Your task to perform on an android device: Search for a dining table on crateandbarrel.com Image 0: 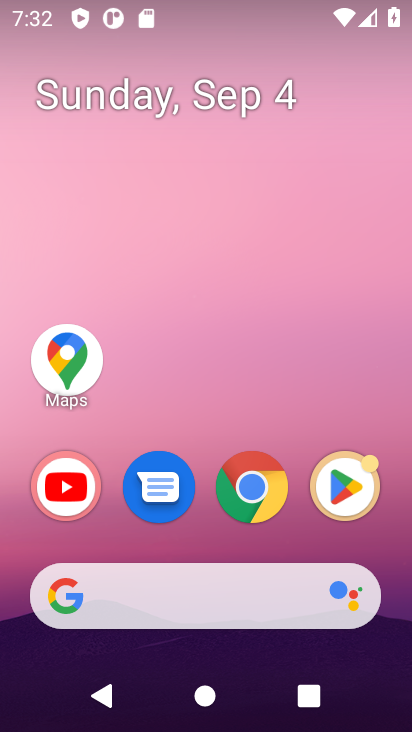
Step 0: click (221, 578)
Your task to perform on an android device: Search for a dining table on crateandbarrel.com Image 1: 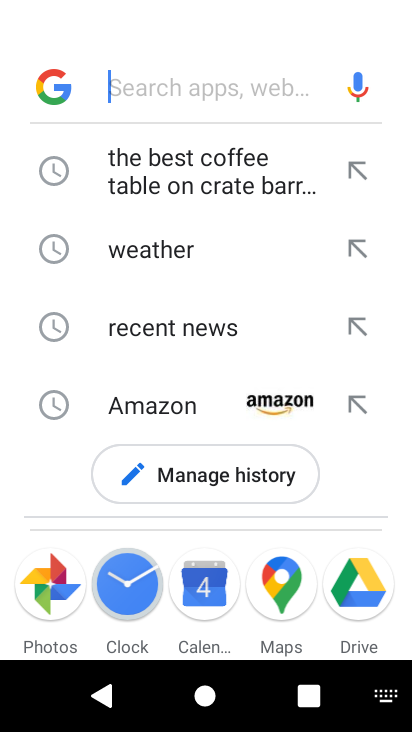
Step 1: type "a dining table on crateandbarrel.com"
Your task to perform on an android device: Search for a dining table on crateandbarrel.com Image 2: 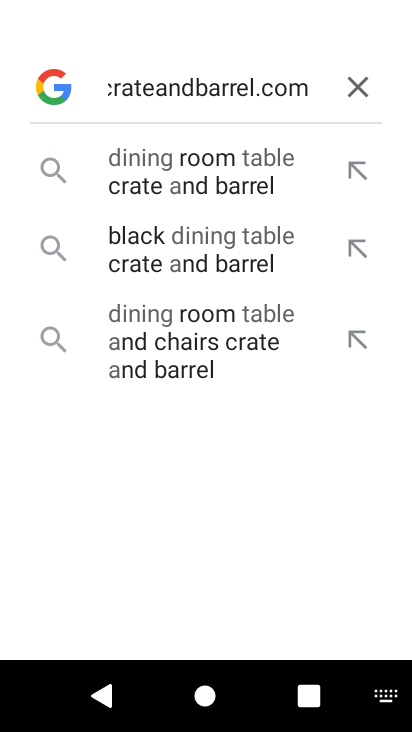
Step 2: click (198, 185)
Your task to perform on an android device: Search for a dining table on crateandbarrel.com Image 3: 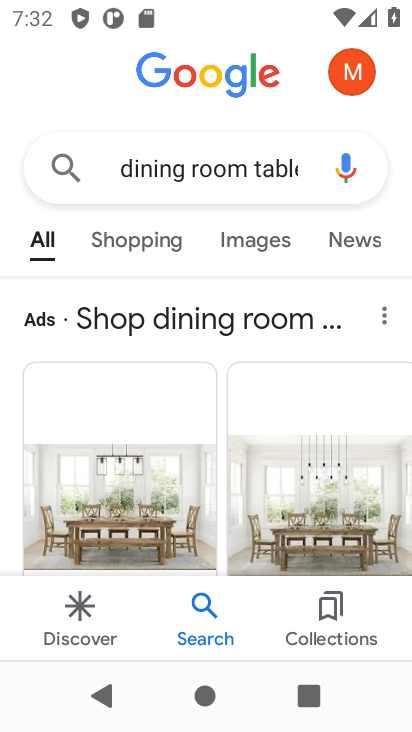
Step 3: task complete